Your task to perform on an android device: turn on notifications settings in the gmail app Image 0: 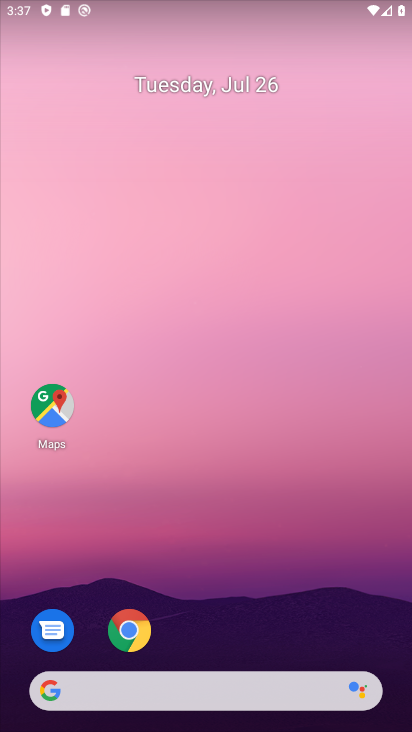
Step 0: drag from (239, 632) to (239, 158)
Your task to perform on an android device: turn on notifications settings in the gmail app Image 1: 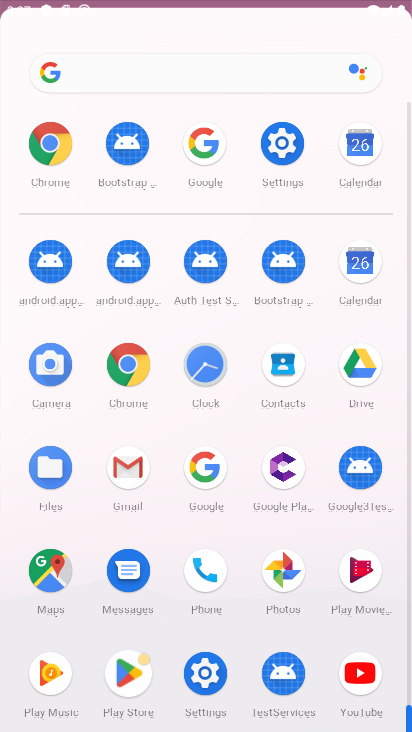
Step 1: drag from (279, 309) to (279, 211)
Your task to perform on an android device: turn on notifications settings in the gmail app Image 2: 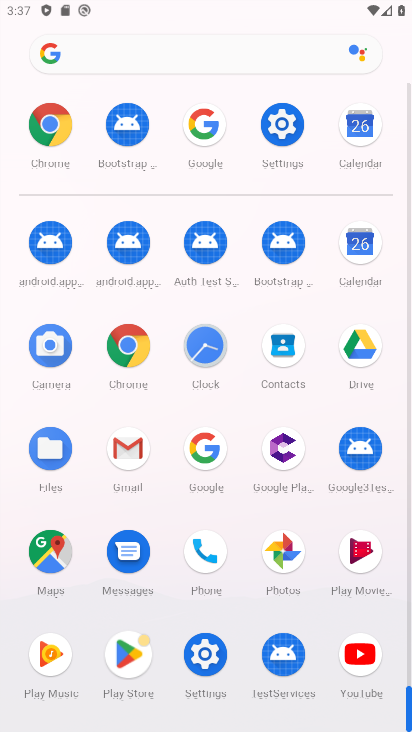
Step 2: click (131, 455)
Your task to perform on an android device: turn on notifications settings in the gmail app Image 3: 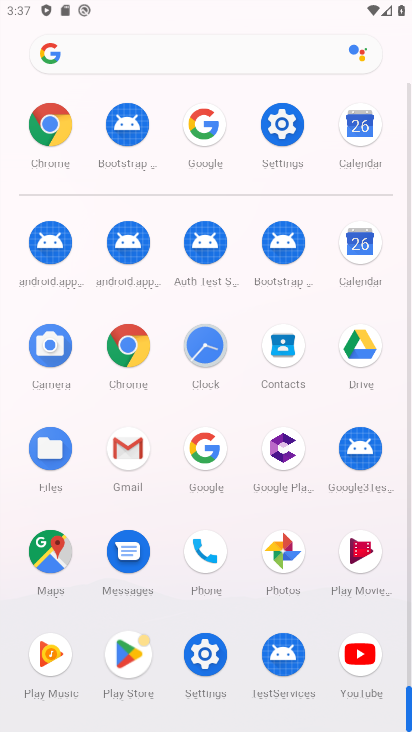
Step 3: click (126, 454)
Your task to perform on an android device: turn on notifications settings in the gmail app Image 4: 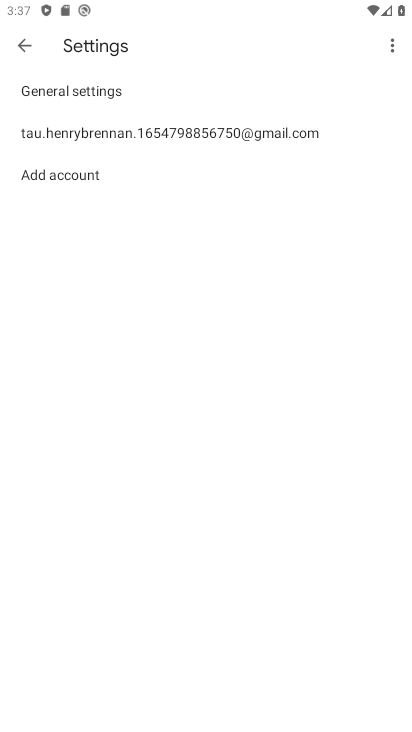
Step 4: click (106, 131)
Your task to perform on an android device: turn on notifications settings in the gmail app Image 5: 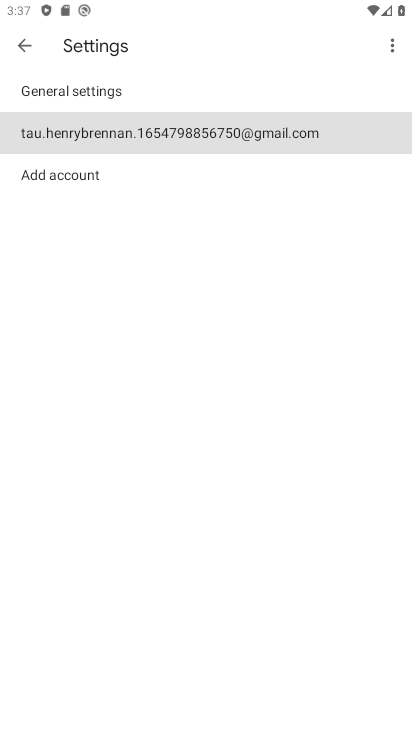
Step 5: click (107, 130)
Your task to perform on an android device: turn on notifications settings in the gmail app Image 6: 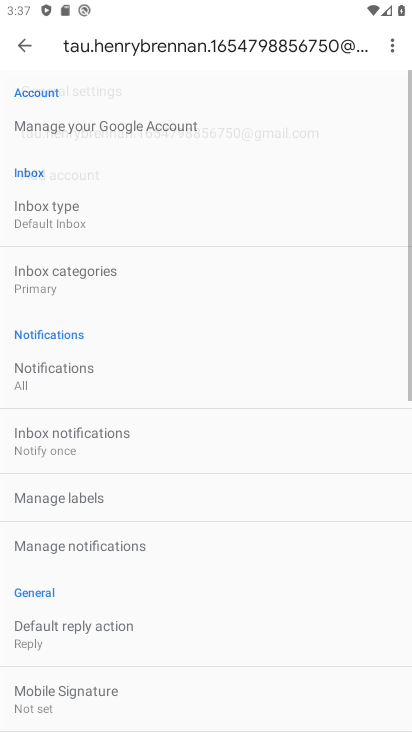
Step 6: click (108, 130)
Your task to perform on an android device: turn on notifications settings in the gmail app Image 7: 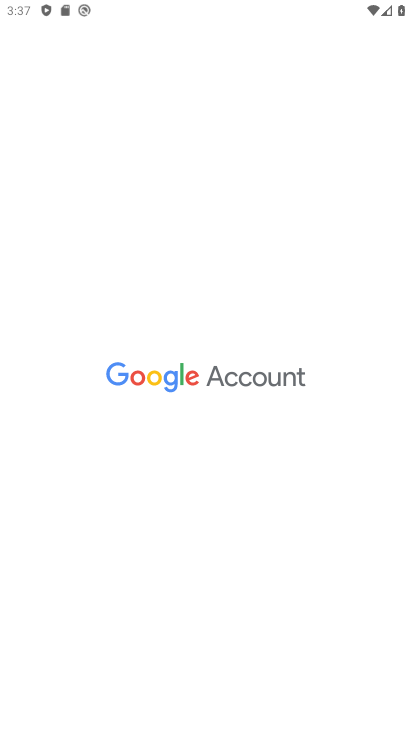
Step 7: click (22, 45)
Your task to perform on an android device: turn on notifications settings in the gmail app Image 8: 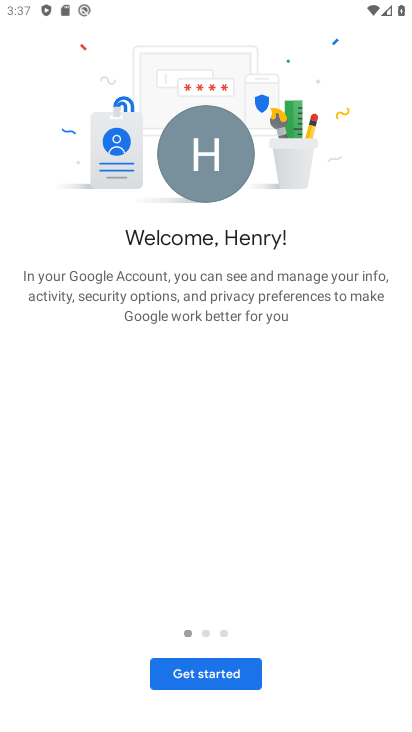
Step 8: click (206, 673)
Your task to perform on an android device: turn on notifications settings in the gmail app Image 9: 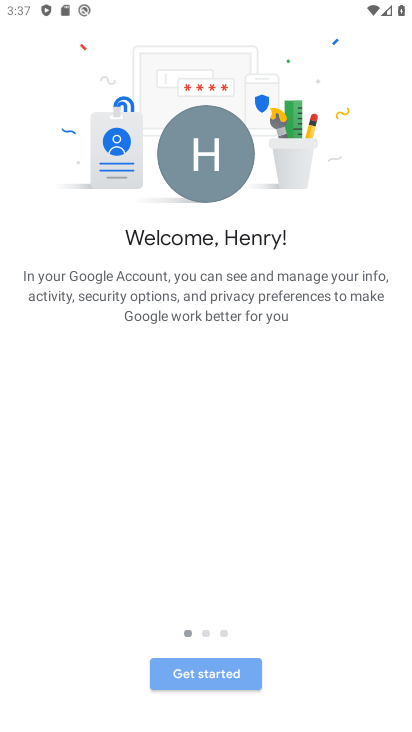
Step 9: click (206, 672)
Your task to perform on an android device: turn on notifications settings in the gmail app Image 10: 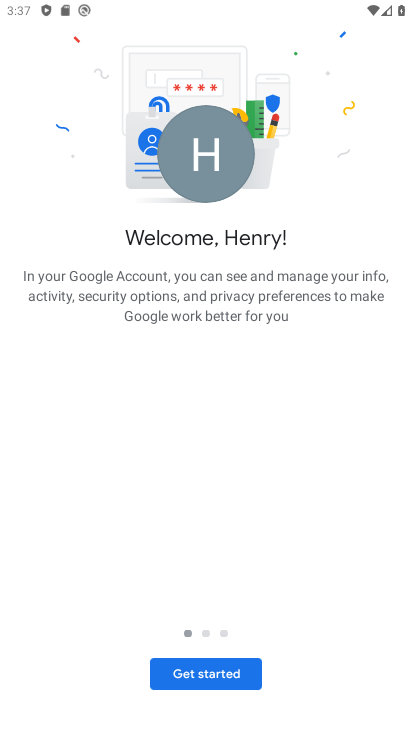
Step 10: click (206, 672)
Your task to perform on an android device: turn on notifications settings in the gmail app Image 11: 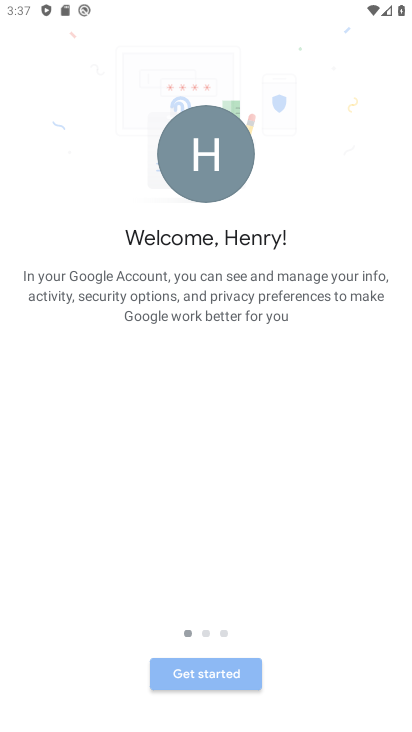
Step 11: click (206, 672)
Your task to perform on an android device: turn on notifications settings in the gmail app Image 12: 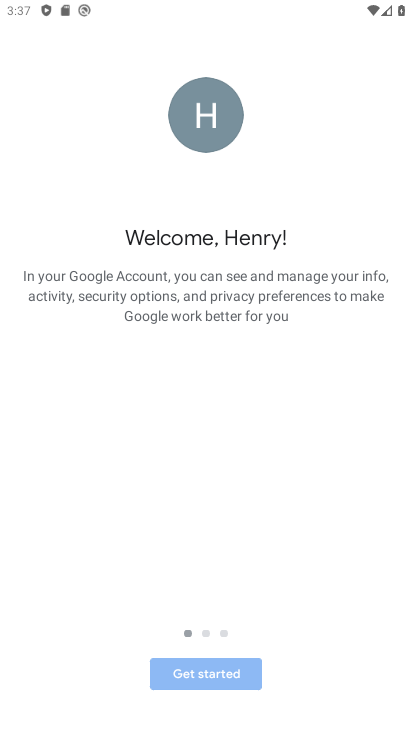
Step 12: click (206, 672)
Your task to perform on an android device: turn on notifications settings in the gmail app Image 13: 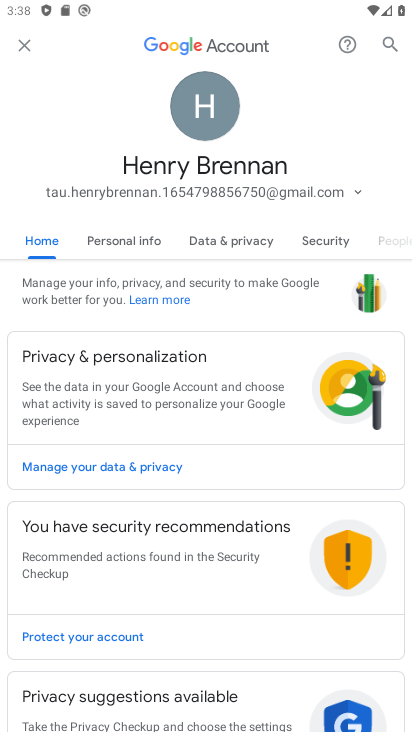
Step 13: click (24, 52)
Your task to perform on an android device: turn on notifications settings in the gmail app Image 14: 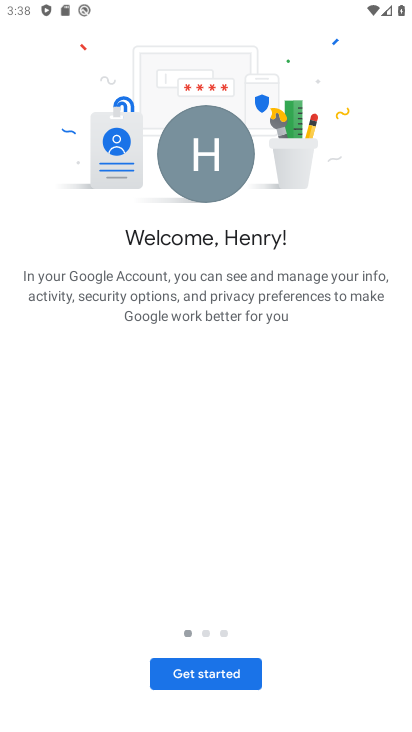
Step 14: press home button
Your task to perform on an android device: turn on notifications settings in the gmail app Image 15: 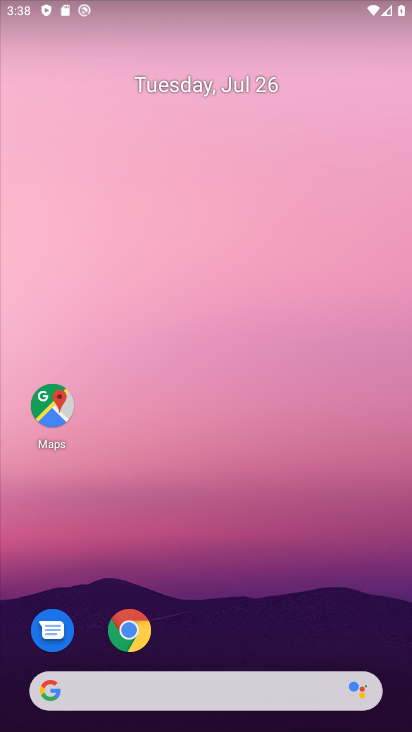
Step 15: drag from (242, 620) to (191, 46)
Your task to perform on an android device: turn on notifications settings in the gmail app Image 16: 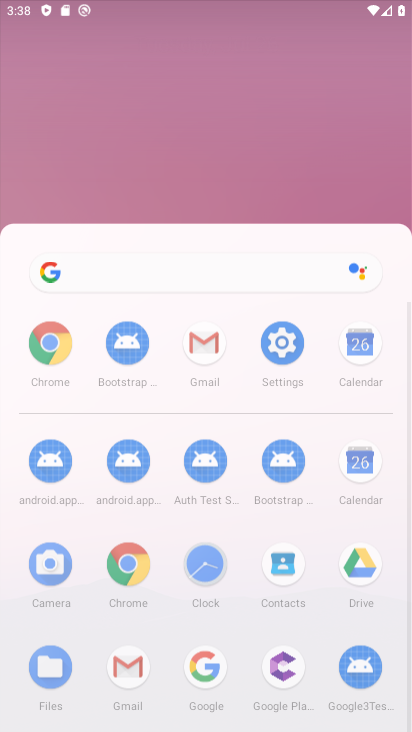
Step 16: drag from (155, 474) to (148, 91)
Your task to perform on an android device: turn on notifications settings in the gmail app Image 17: 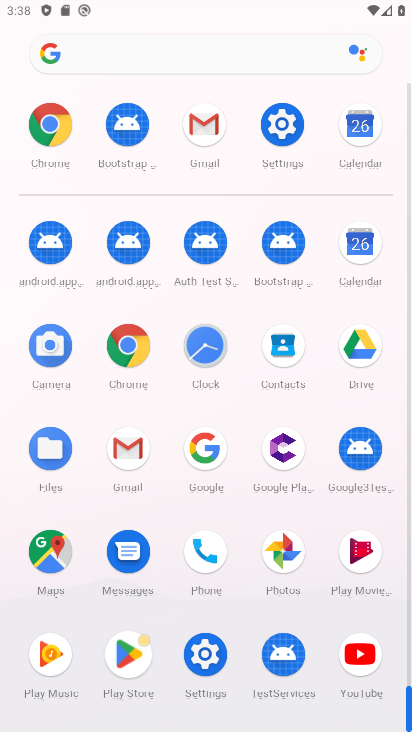
Step 17: drag from (160, 214) to (169, 46)
Your task to perform on an android device: turn on notifications settings in the gmail app Image 18: 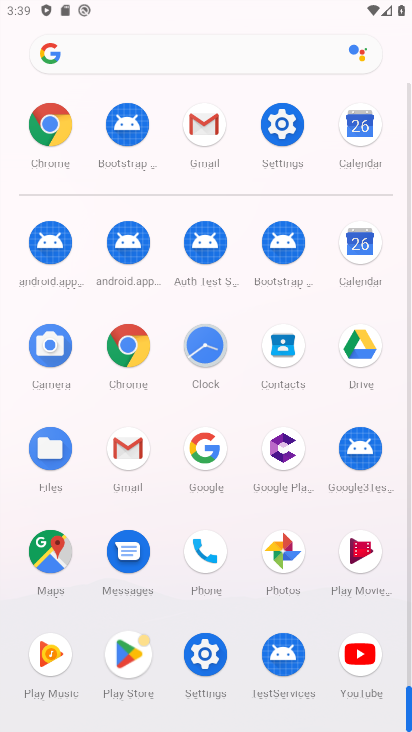
Step 18: click (203, 657)
Your task to perform on an android device: turn on notifications settings in the gmail app Image 19: 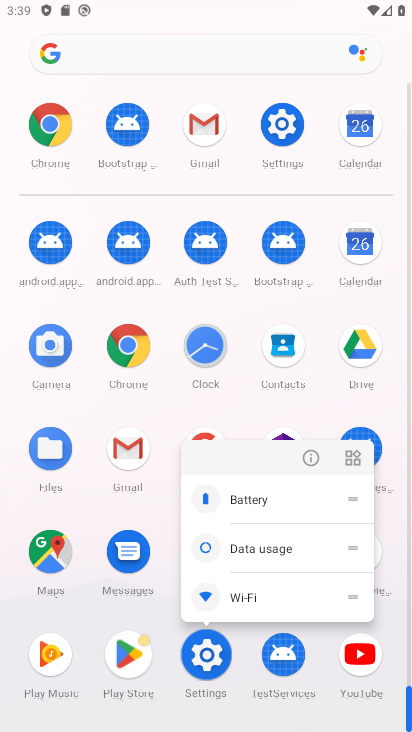
Step 19: click (203, 657)
Your task to perform on an android device: turn on notifications settings in the gmail app Image 20: 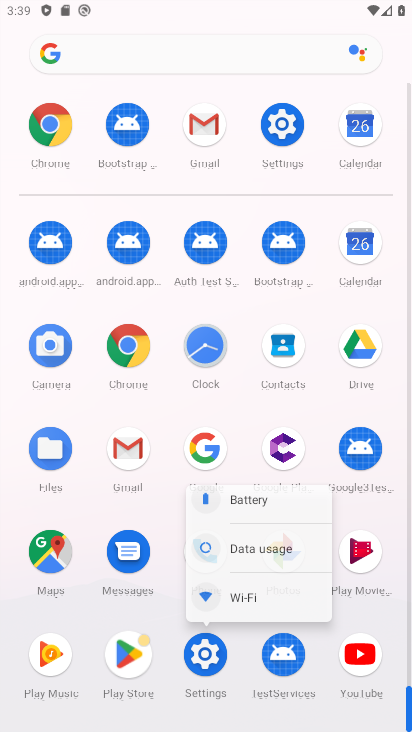
Step 20: click (204, 658)
Your task to perform on an android device: turn on notifications settings in the gmail app Image 21: 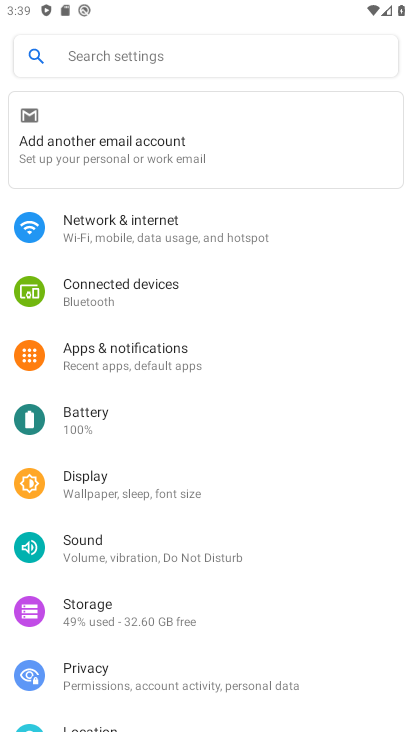
Step 21: click (121, 345)
Your task to perform on an android device: turn on notifications settings in the gmail app Image 22: 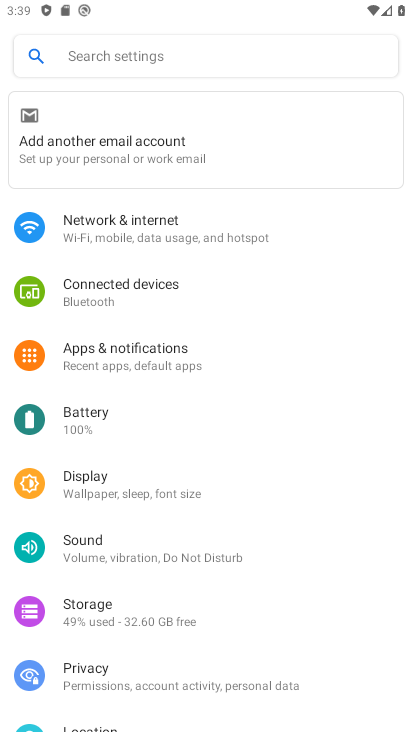
Step 22: click (121, 345)
Your task to perform on an android device: turn on notifications settings in the gmail app Image 23: 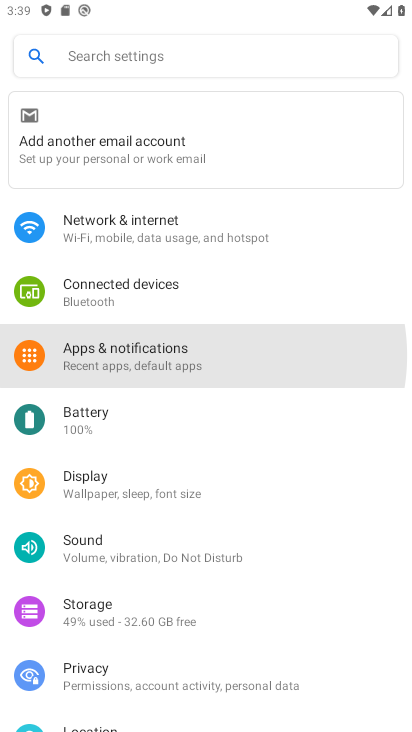
Step 23: click (123, 345)
Your task to perform on an android device: turn on notifications settings in the gmail app Image 24: 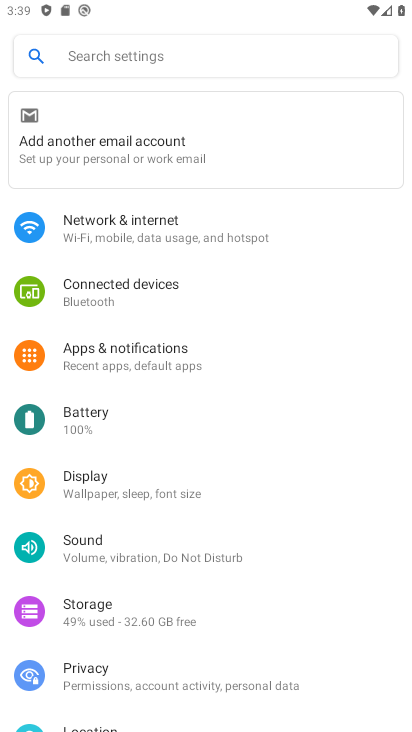
Step 24: click (124, 345)
Your task to perform on an android device: turn on notifications settings in the gmail app Image 25: 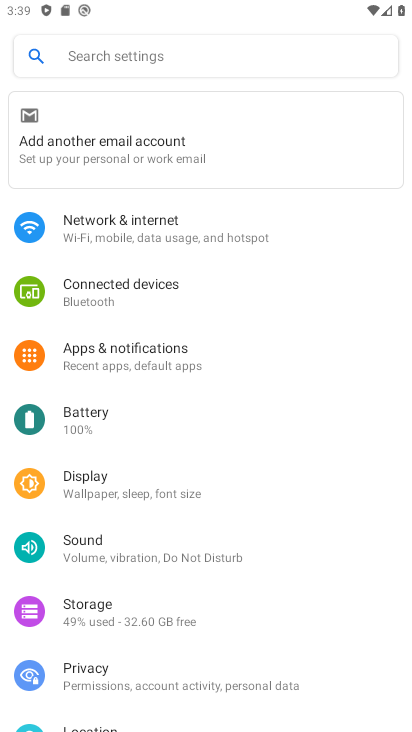
Step 25: click (124, 345)
Your task to perform on an android device: turn on notifications settings in the gmail app Image 26: 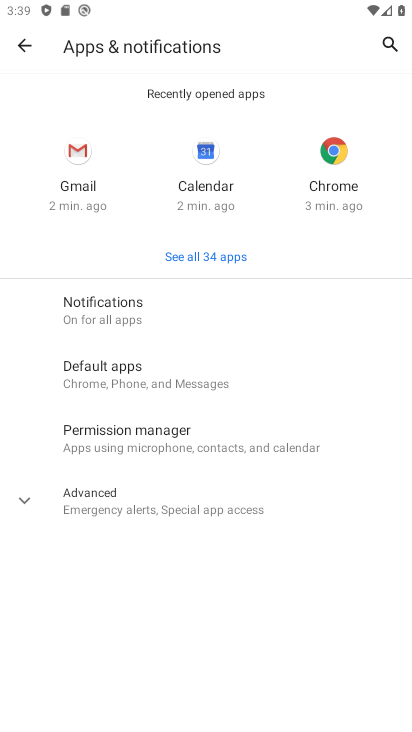
Step 26: click (101, 310)
Your task to perform on an android device: turn on notifications settings in the gmail app Image 27: 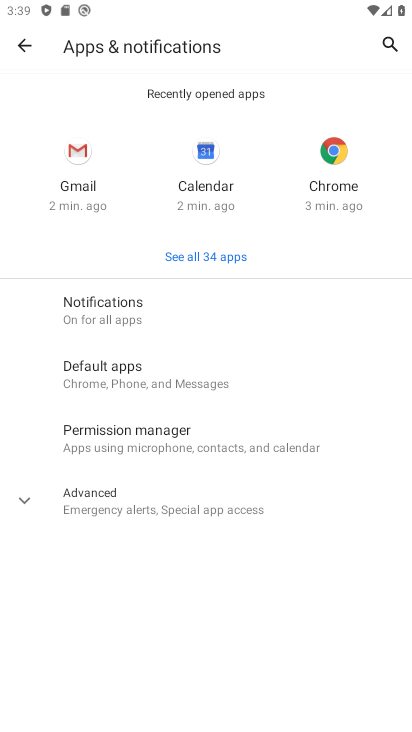
Step 27: click (102, 310)
Your task to perform on an android device: turn on notifications settings in the gmail app Image 28: 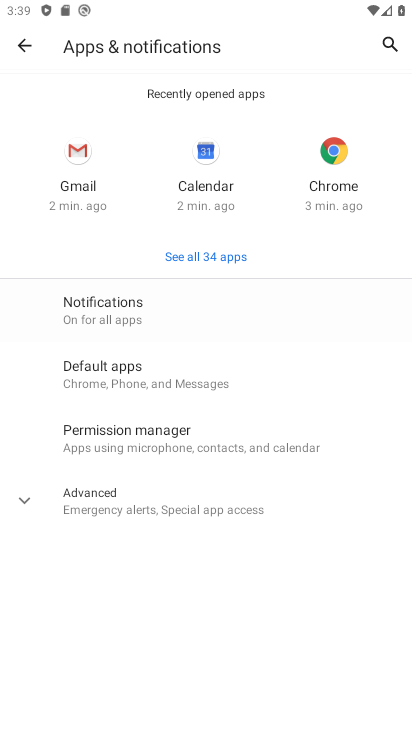
Step 28: click (105, 311)
Your task to perform on an android device: turn on notifications settings in the gmail app Image 29: 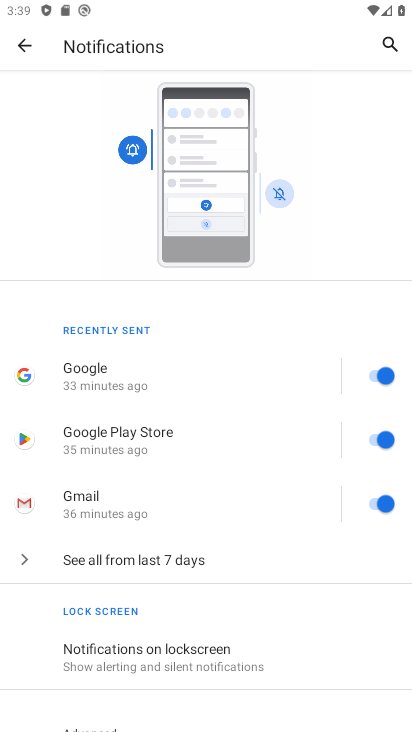
Step 29: drag from (175, 632) to (141, 375)
Your task to perform on an android device: turn on notifications settings in the gmail app Image 30: 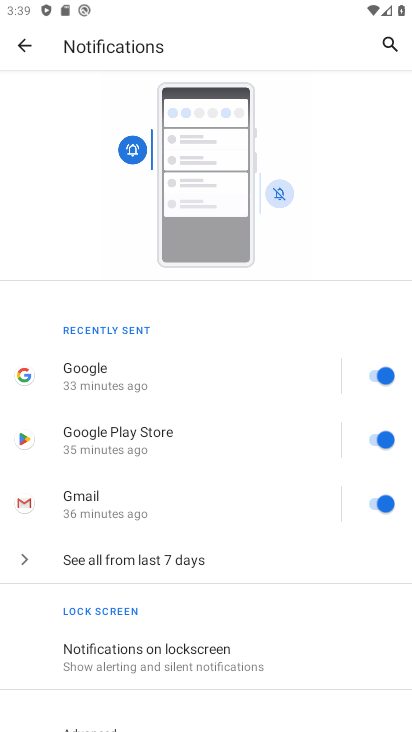
Step 30: drag from (169, 567) to (182, 240)
Your task to perform on an android device: turn on notifications settings in the gmail app Image 31: 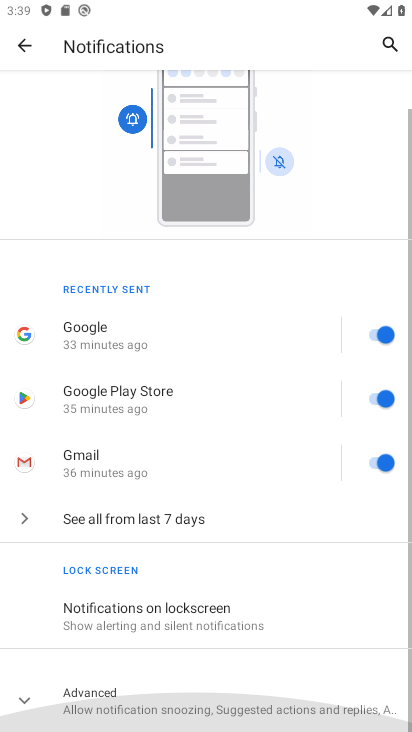
Step 31: drag from (263, 452) to (236, 254)
Your task to perform on an android device: turn on notifications settings in the gmail app Image 32: 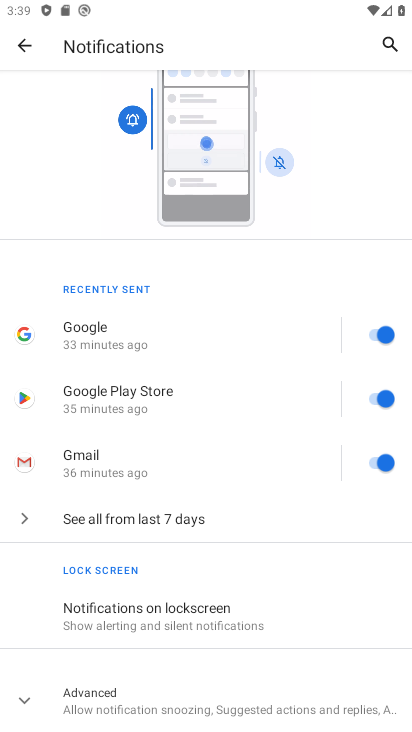
Step 32: click (113, 694)
Your task to perform on an android device: turn on notifications settings in the gmail app Image 33: 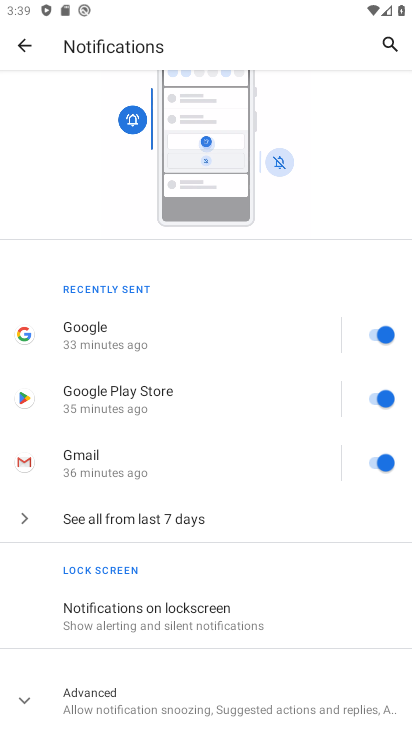
Step 33: click (113, 694)
Your task to perform on an android device: turn on notifications settings in the gmail app Image 34: 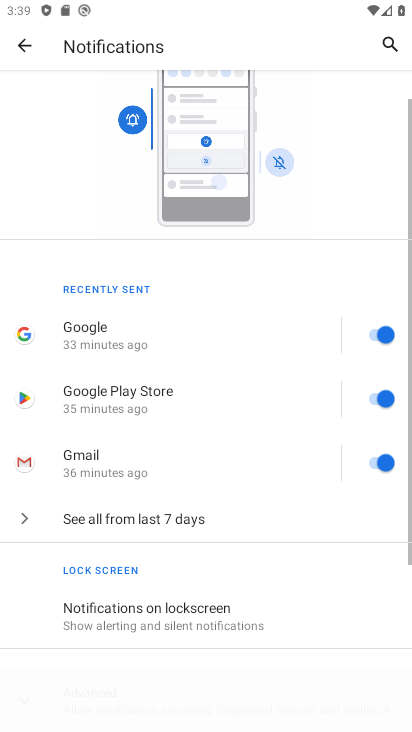
Step 34: click (113, 694)
Your task to perform on an android device: turn on notifications settings in the gmail app Image 35: 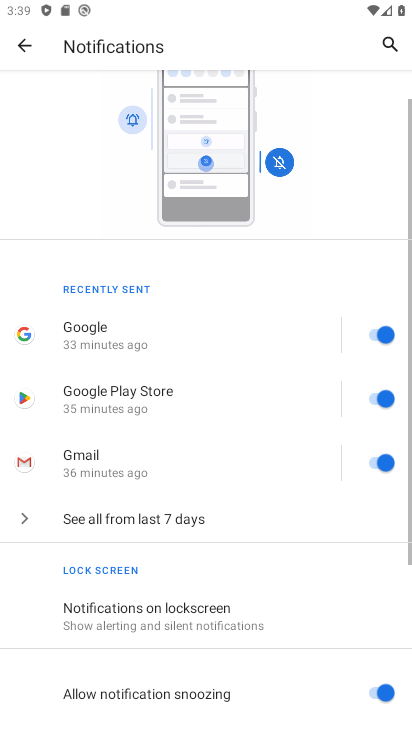
Step 35: task complete